Your task to perform on an android device: Go to Yahoo.com Image 0: 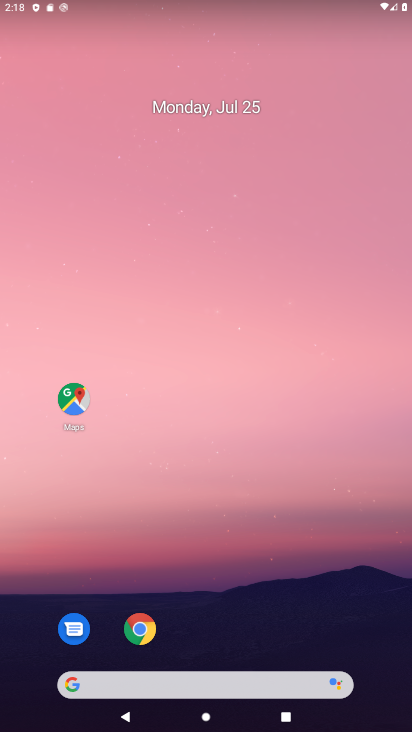
Step 0: drag from (209, 717) to (398, 56)
Your task to perform on an android device: Go to Yahoo.com Image 1: 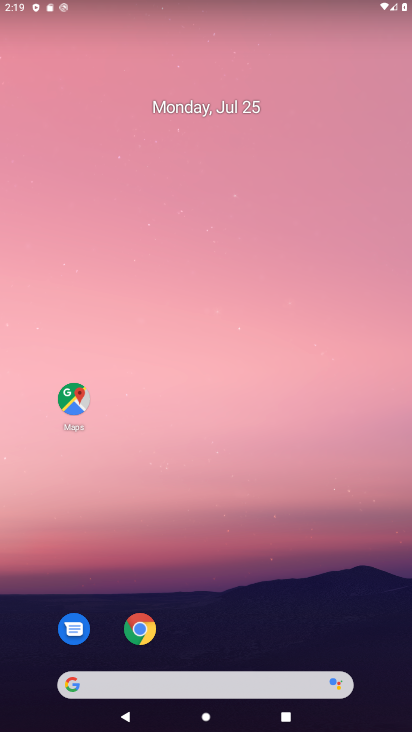
Step 1: drag from (260, 492) to (285, 199)
Your task to perform on an android device: Go to Yahoo.com Image 2: 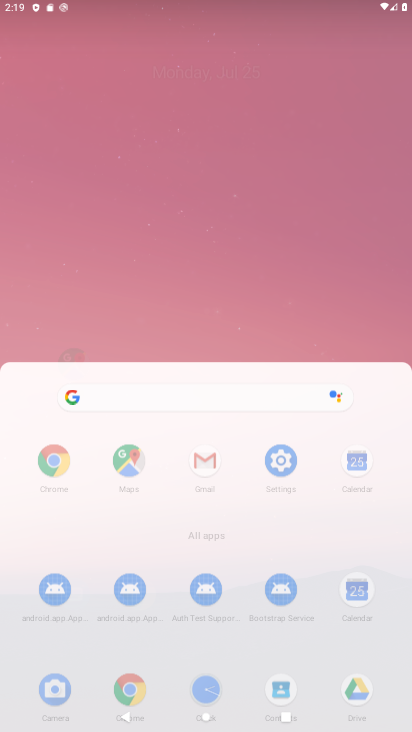
Step 2: drag from (232, 247) to (220, 179)
Your task to perform on an android device: Go to Yahoo.com Image 3: 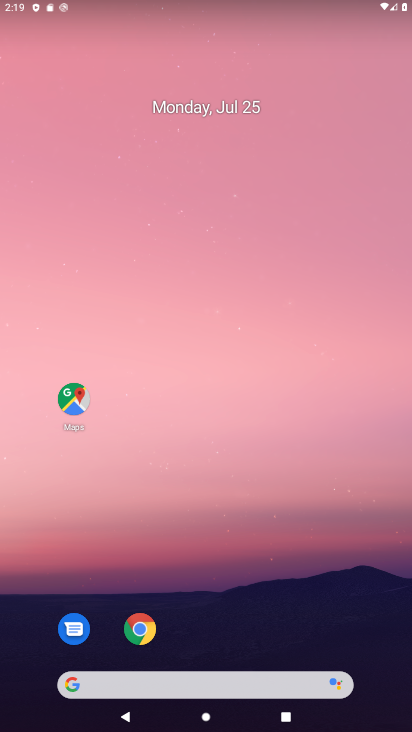
Step 3: drag from (246, 467) to (225, 120)
Your task to perform on an android device: Go to Yahoo.com Image 4: 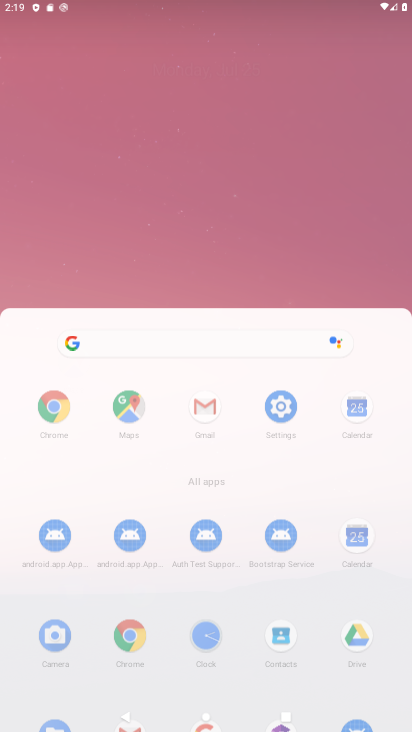
Step 4: drag from (233, 540) to (234, 206)
Your task to perform on an android device: Go to Yahoo.com Image 5: 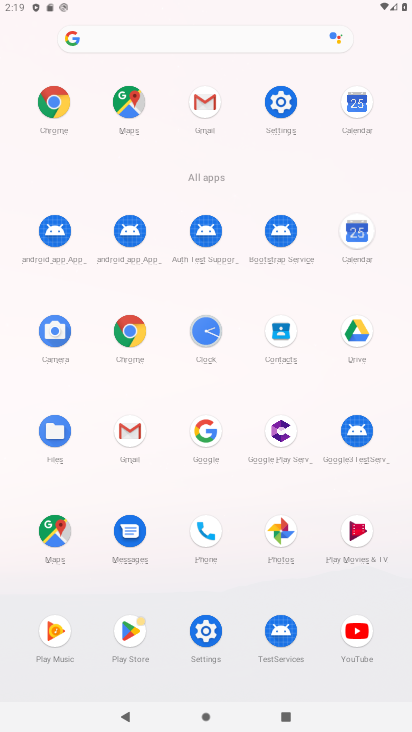
Step 5: drag from (243, 409) to (213, 139)
Your task to perform on an android device: Go to Yahoo.com Image 6: 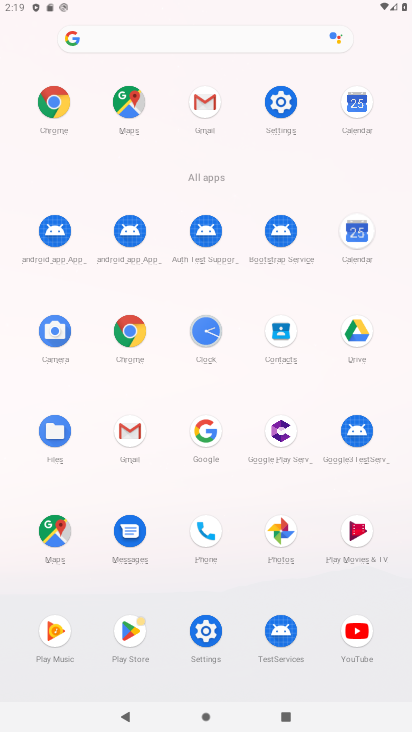
Step 6: click (126, 323)
Your task to perform on an android device: Go to Yahoo.com Image 7: 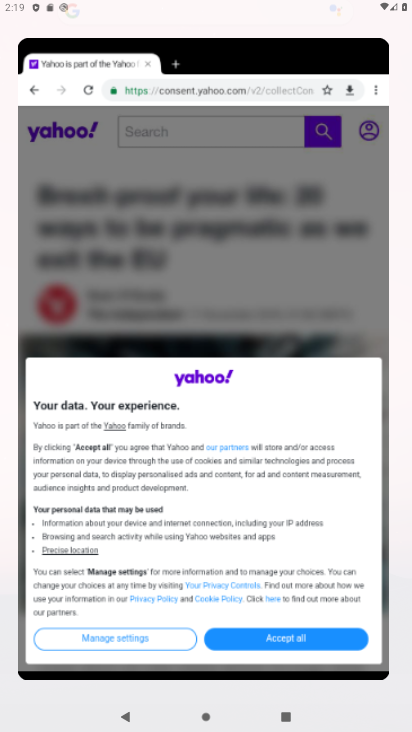
Step 7: click (126, 323)
Your task to perform on an android device: Go to Yahoo.com Image 8: 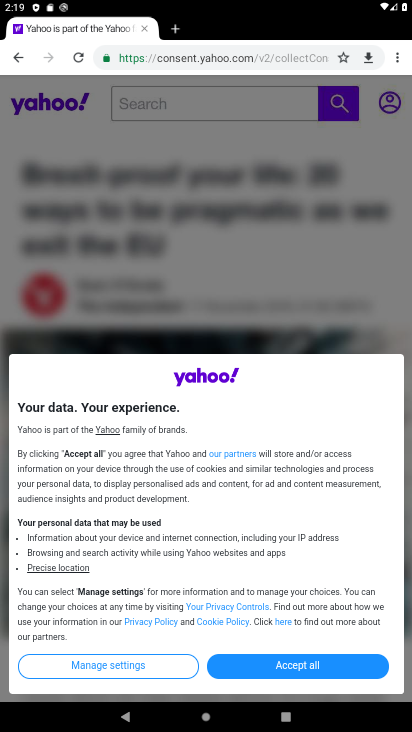
Step 8: task complete